Your task to perform on an android device: toggle wifi Image 0: 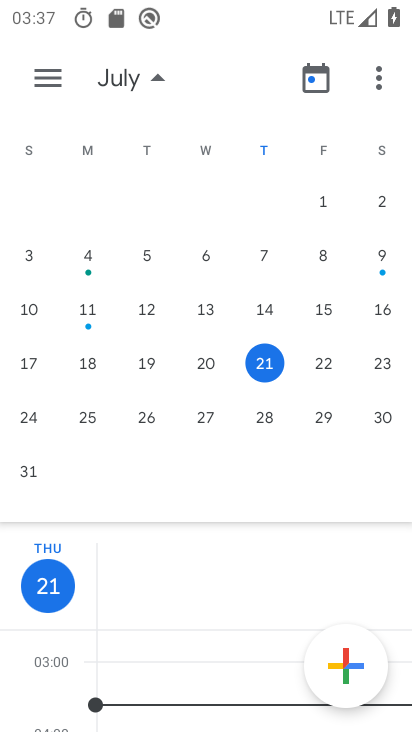
Step 0: press home button
Your task to perform on an android device: toggle wifi Image 1: 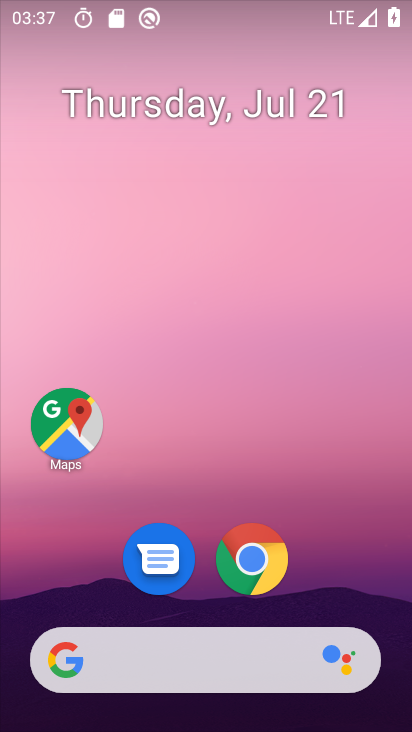
Step 1: drag from (343, 571) to (344, 46)
Your task to perform on an android device: toggle wifi Image 2: 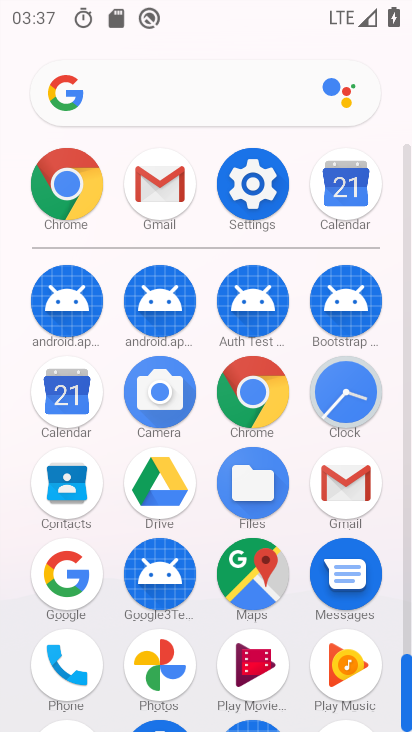
Step 2: click (280, 194)
Your task to perform on an android device: toggle wifi Image 3: 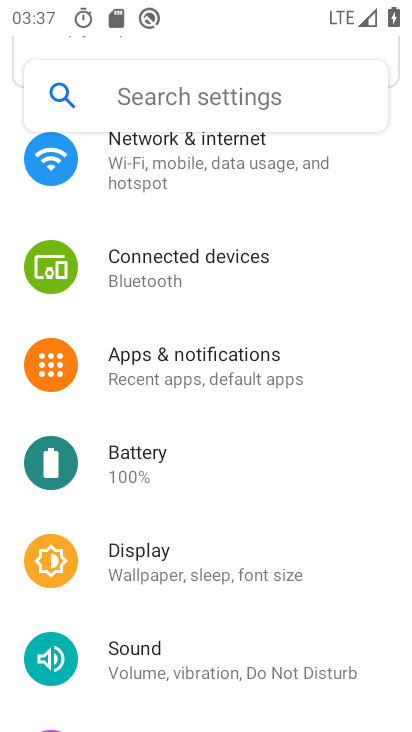
Step 3: drag from (345, 517) to (347, 450)
Your task to perform on an android device: toggle wifi Image 4: 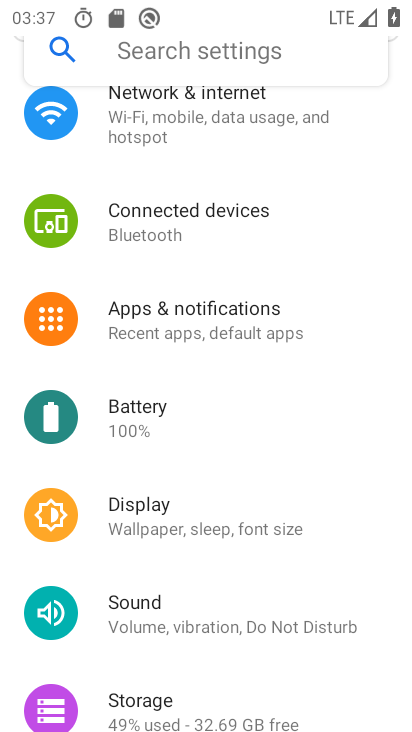
Step 4: drag from (348, 537) to (350, 431)
Your task to perform on an android device: toggle wifi Image 5: 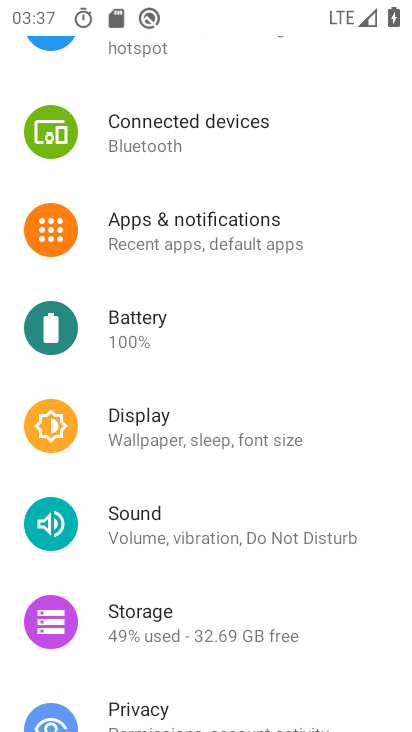
Step 5: drag from (352, 497) to (352, 417)
Your task to perform on an android device: toggle wifi Image 6: 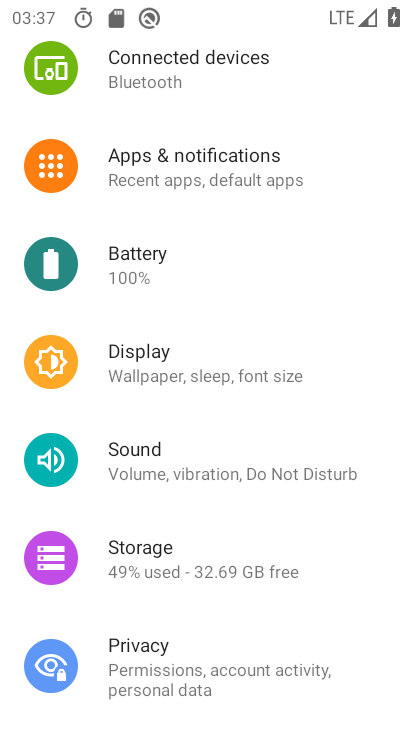
Step 6: drag from (350, 511) to (350, 409)
Your task to perform on an android device: toggle wifi Image 7: 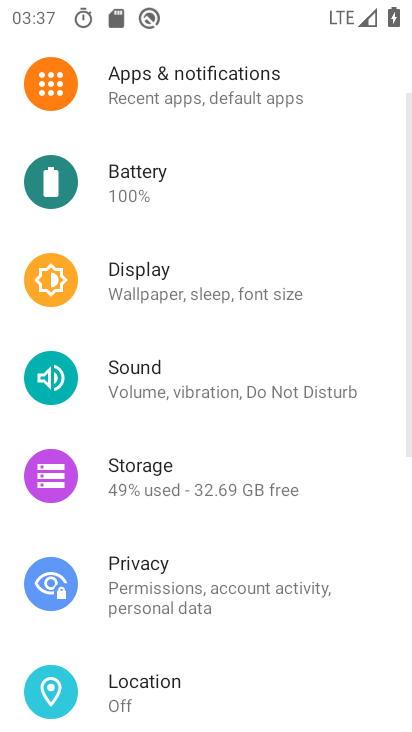
Step 7: drag from (348, 508) to (349, 403)
Your task to perform on an android device: toggle wifi Image 8: 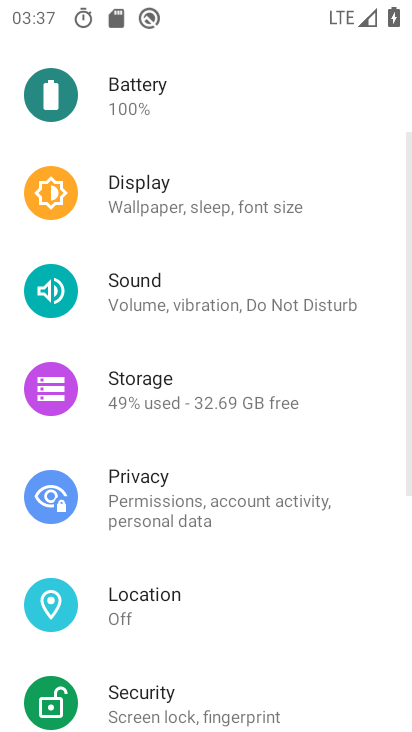
Step 8: drag from (359, 542) to (359, 450)
Your task to perform on an android device: toggle wifi Image 9: 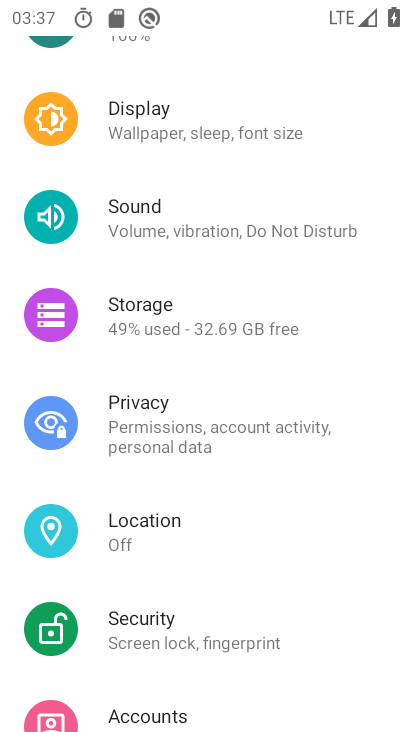
Step 9: drag from (350, 538) to (350, 392)
Your task to perform on an android device: toggle wifi Image 10: 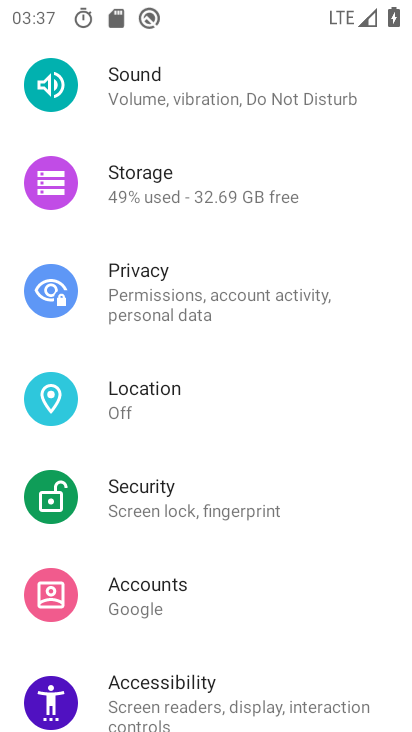
Step 10: drag from (353, 356) to (354, 443)
Your task to perform on an android device: toggle wifi Image 11: 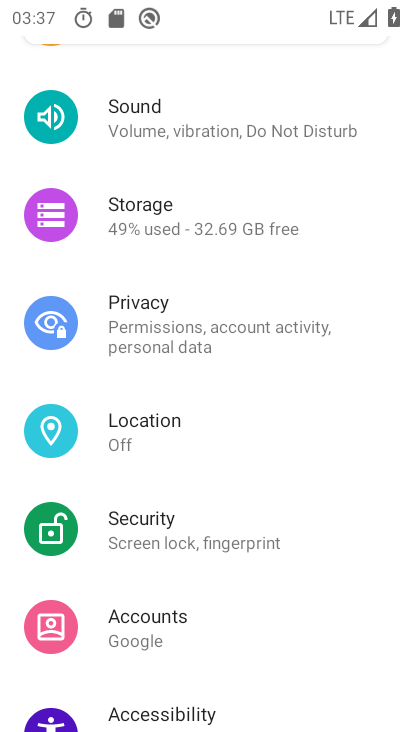
Step 11: drag from (359, 312) to (360, 419)
Your task to perform on an android device: toggle wifi Image 12: 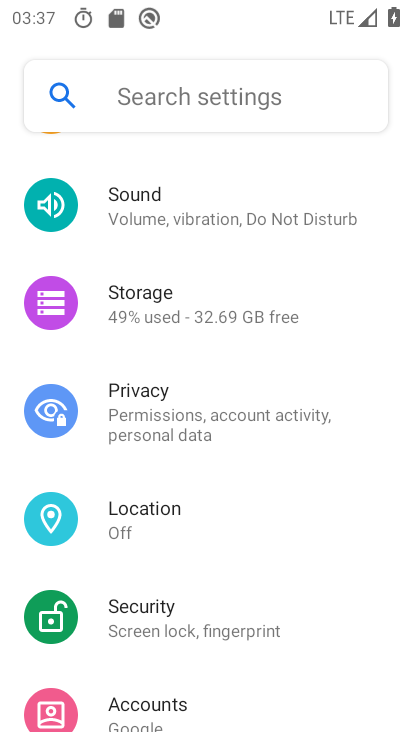
Step 12: drag from (360, 299) to (360, 395)
Your task to perform on an android device: toggle wifi Image 13: 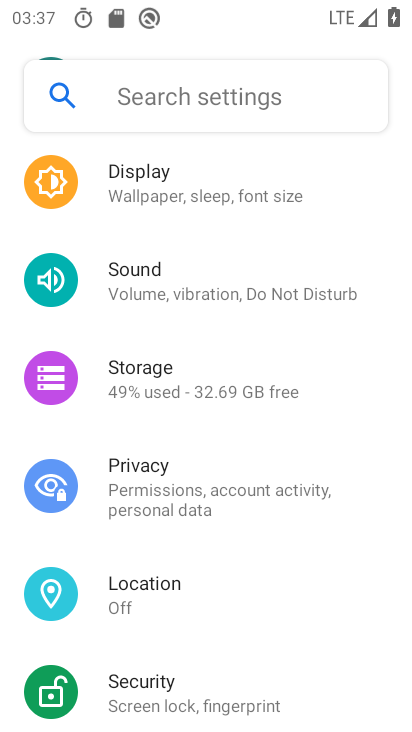
Step 13: drag from (369, 261) to (366, 372)
Your task to perform on an android device: toggle wifi Image 14: 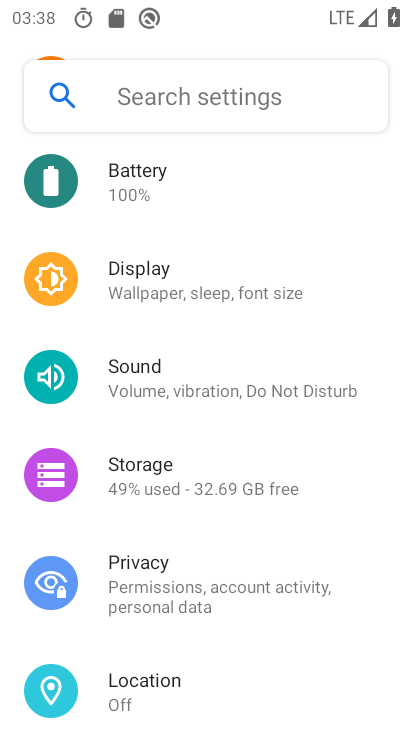
Step 14: drag from (363, 257) to (359, 351)
Your task to perform on an android device: toggle wifi Image 15: 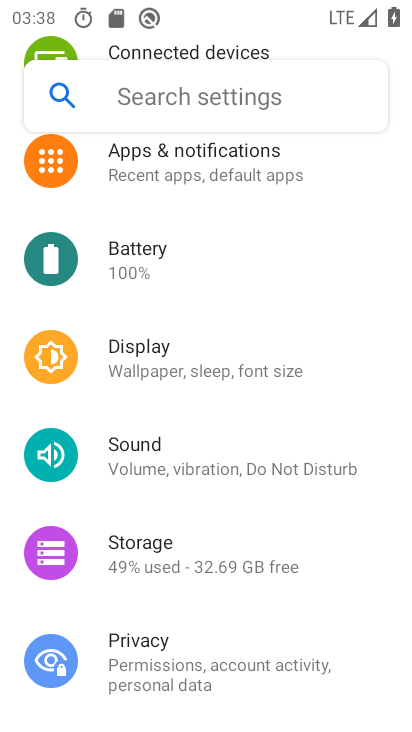
Step 15: drag from (360, 210) to (355, 298)
Your task to perform on an android device: toggle wifi Image 16: 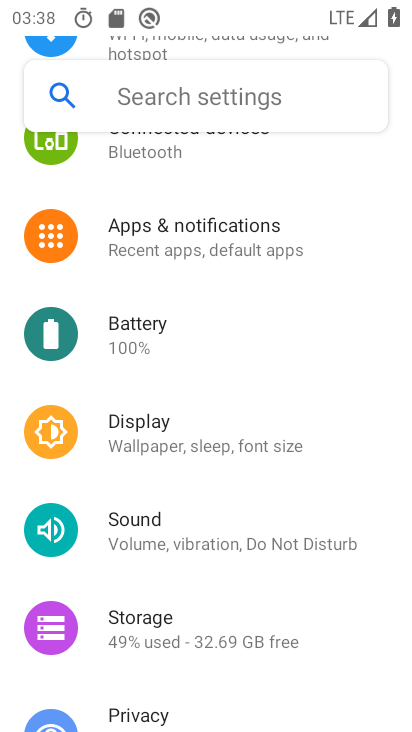
Step 16: drag from (365, 188) to (353, 329)
Your task to perform on an android device: toggle wifi Image 17: 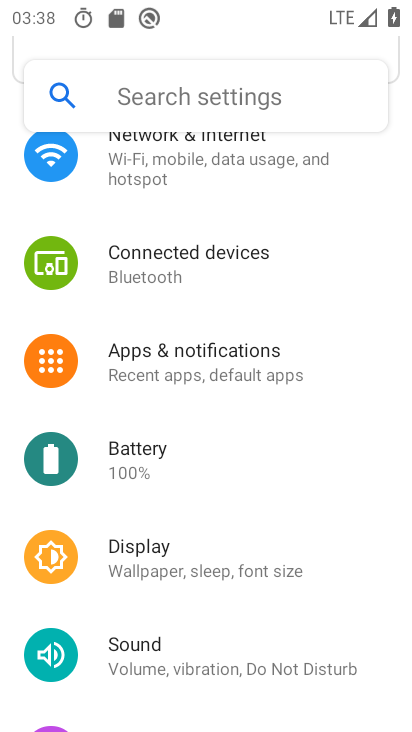
Step 17: drag from (353, 204) to (352, 444)
Your task to perform on an android device: toggle wifi Image 18: 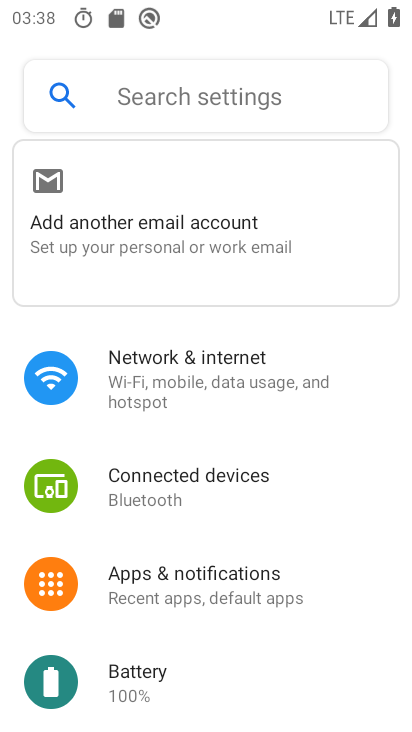
Step 18: click (329, 380)
Your task to perform on an android device: toggle wifi Image 19: 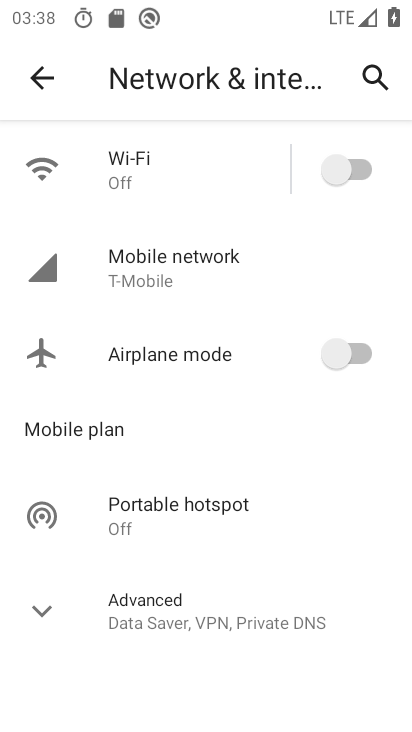
Step 19: click (348, 160)
Your task to perform on an android device: toggle wifi Image 20: 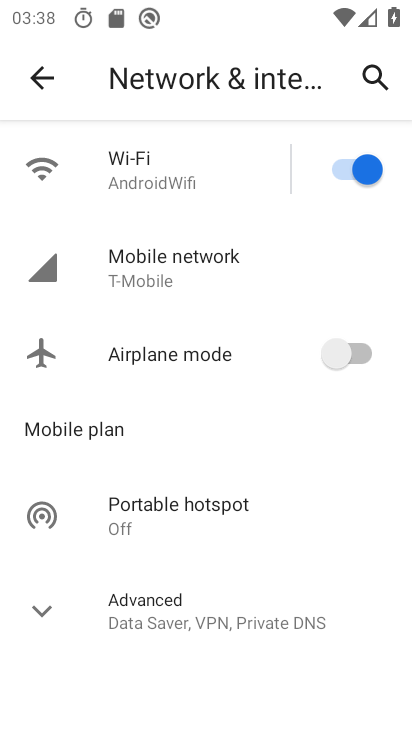
Step 20: task complete